Your task to perform on an android device: uninstall "Pinterest" Image 0: 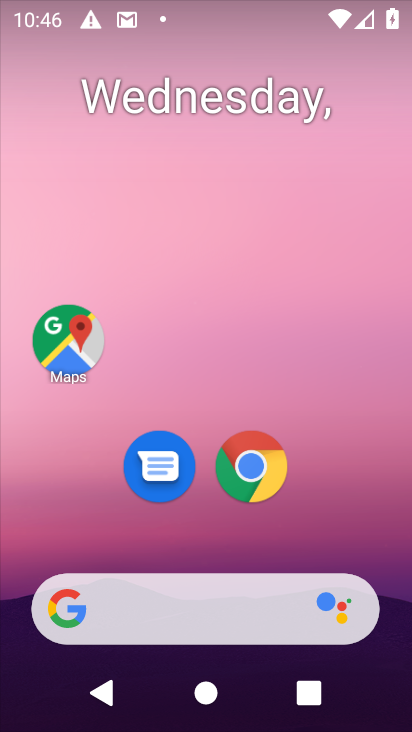
Step 0: drag from (327, 574) to (260, 129)
Your task to perform on an android device: uninstall "Pinterest" Image 1: 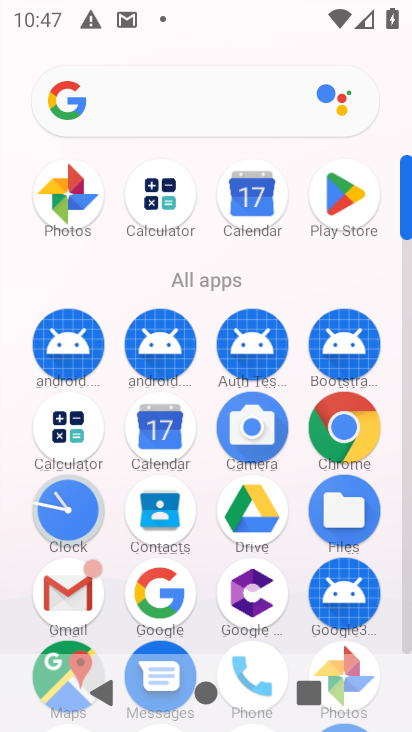
Step 1: task complete